Your task to perform on an android device: turn pop-ups on in chrome Image 0: 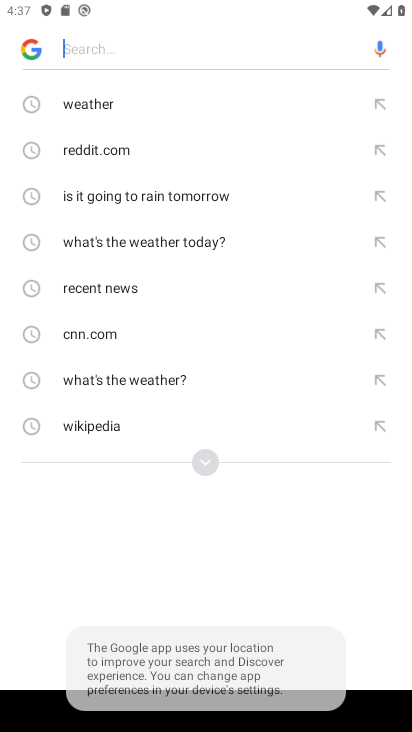
Step 0: press home button
Your task to perform on an android device: turn pop-ups on in chrome Image 1: 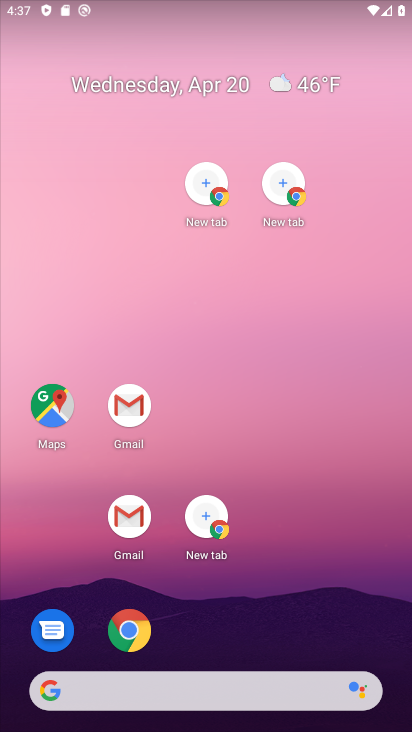
Step 1: drag from (188, 310) to (161, 159)
Your task to perform on an android device: turn pop-ups on in chrome Image 2: 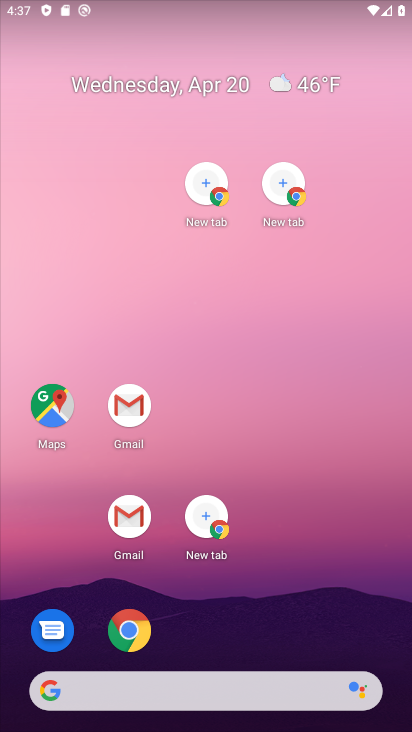
Step 2: drag from (248, 434) to (206, 80)
Your task to perform on an android device: turn pop-ups on in chrome Image 3: 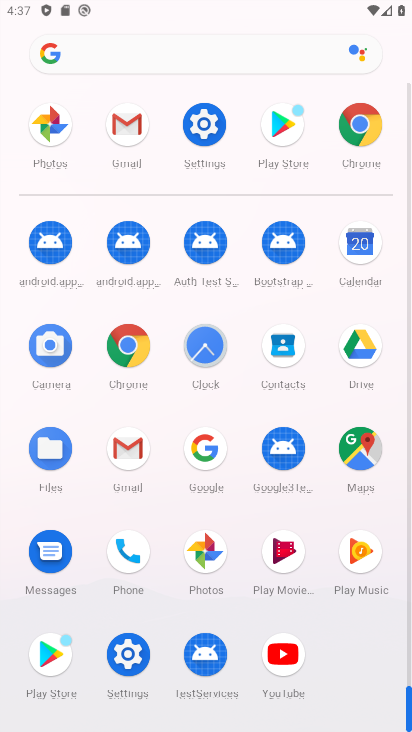
Step 3: click (355, 122)
Your task to perform on an android device: turn pop-ups on in chrome Image 4: 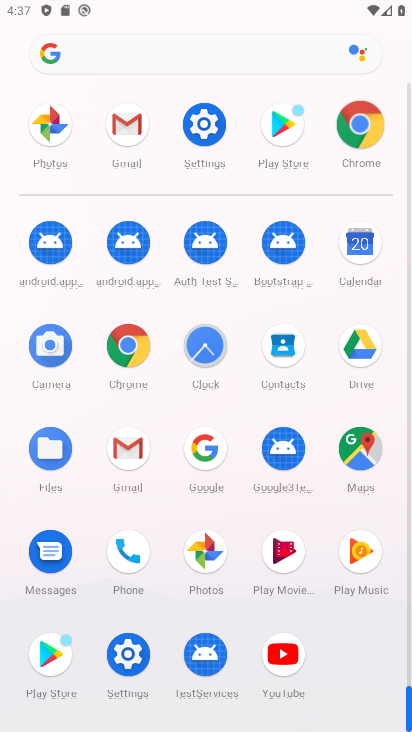
Step 4: click (355, 122)
Your task to perform on an android device: turn pop-ups on in chrome Image 5: 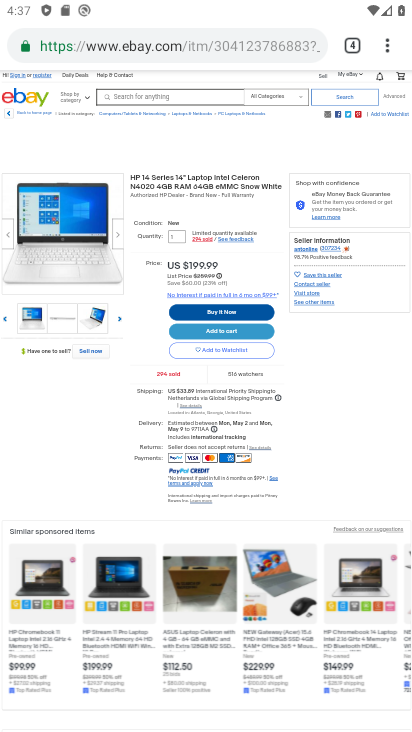
Step 5: drag from (384, 47) to (231, 587)
Your task to perform on an android device: turn pop-ups on in chrome Image 6: 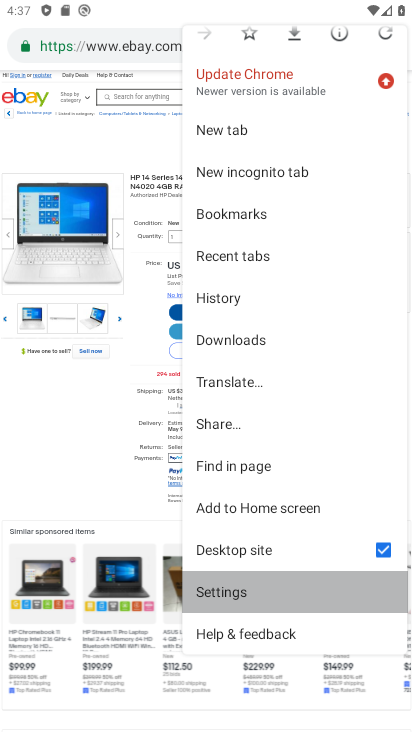
Step 6: click (231, 587)
Your task to perform on an android device: turn pop-ups on in chrome Image 7: 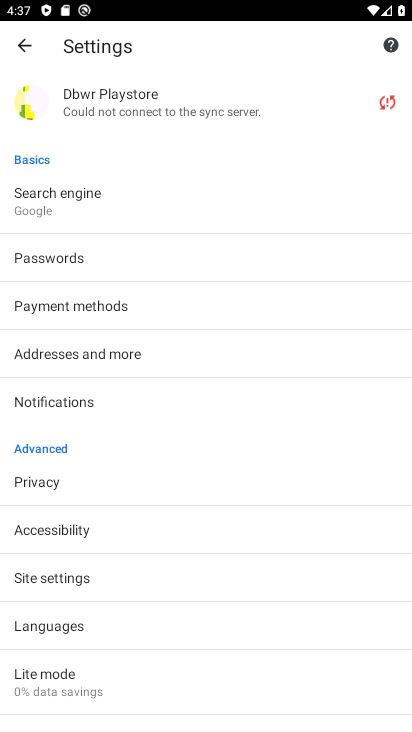
Step 7: drag from (102, 517) to (50, 245)
Your task to perform on an android device: turn pop-ups on in chrome Image 8: 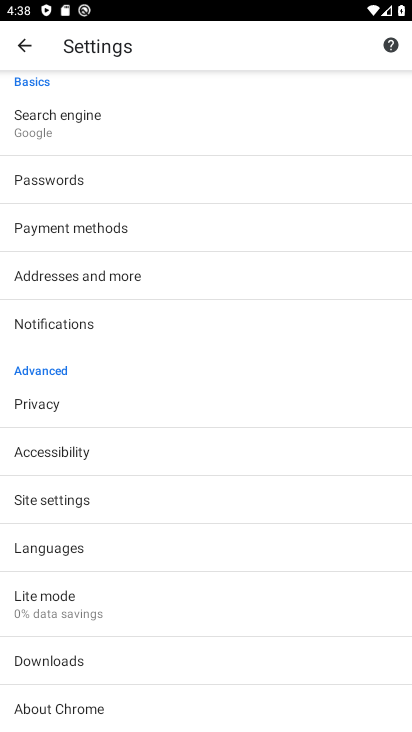
Step 8: click (52, 501)
Your task to perform on an android device: turn pop-ups on in chrome Image 9: 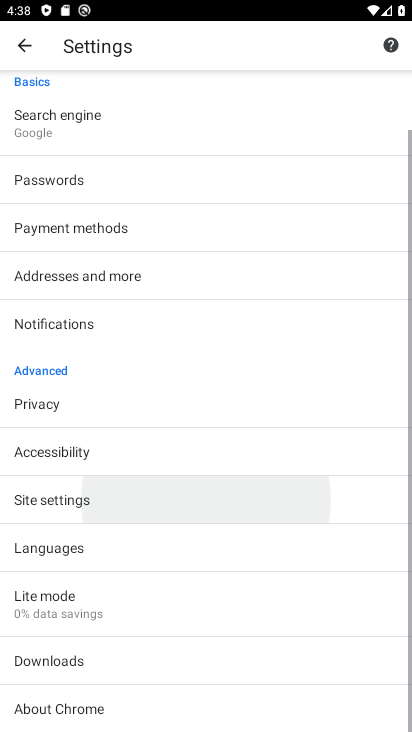
Step 9: click (51, 500)
Your task to perform on an android device: turn pop-ups on in chrome Image 10: 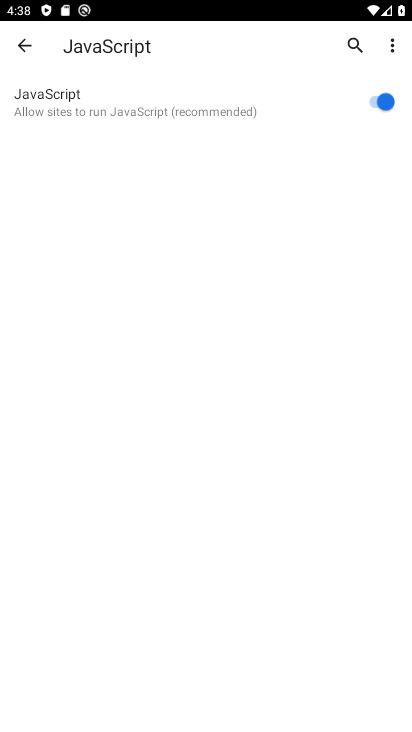
Step 10: click (16, 48)
Your task to perform on an android device: turn pop-ups on in chrome Image 11: 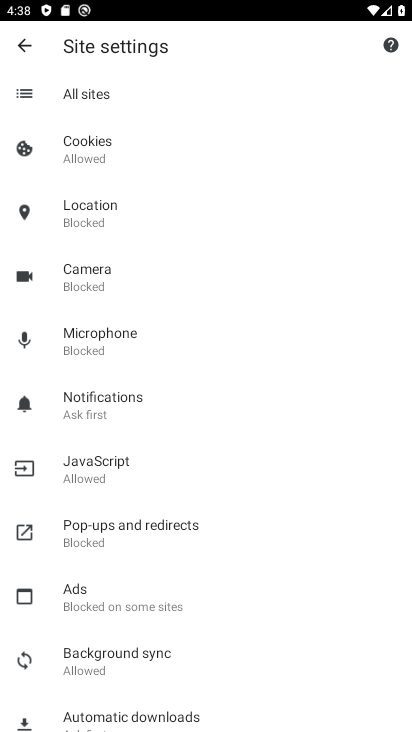
Step 11: click (105, 513)
Your task to perform on an android device: turn pop-ups on in chrome Image 12: 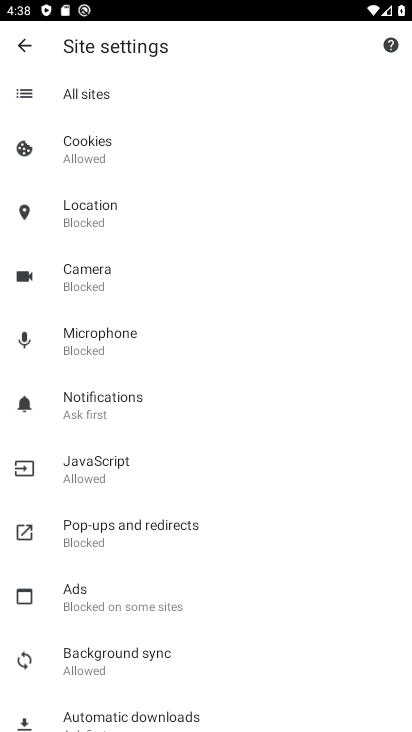
Step 12: click (105, 521)
Your task to perform on an android device: turn pop-ups on in chrome Image 13: 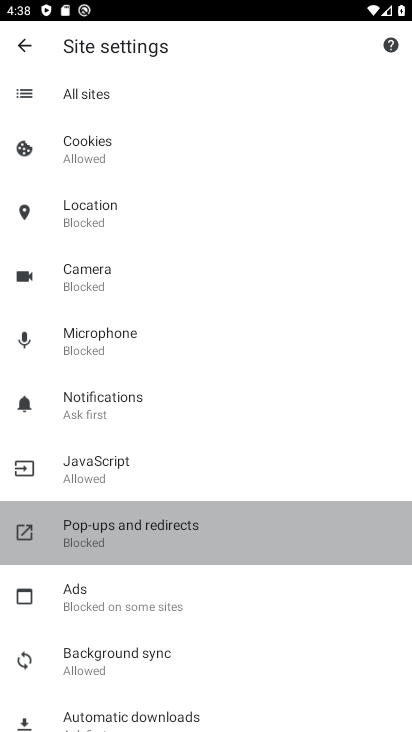
Step 13: click (106, 528)
Your task to perform on an android device: turn pop-ups on in chrome Image 14: 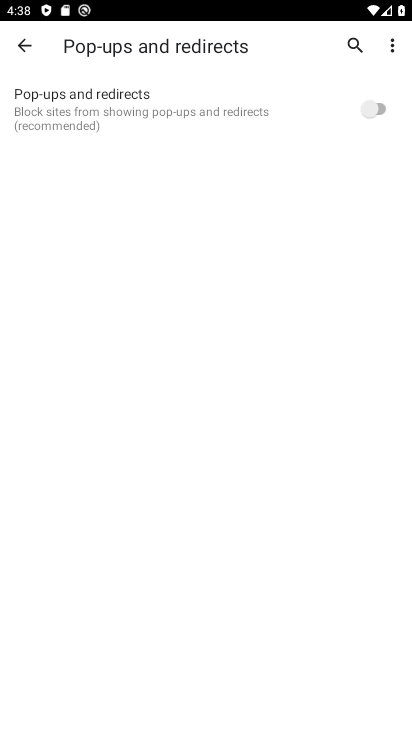
Step 14: click (364, 110)
Your task to perform on an android device: turn pop-ups on in chrome Image 15: 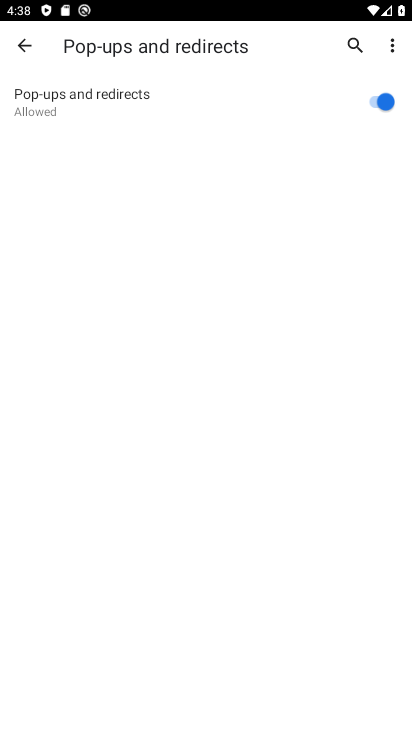
Step 15: task complete